Your task to perform on an android device: turn on data saver in the chrome app Image 0: 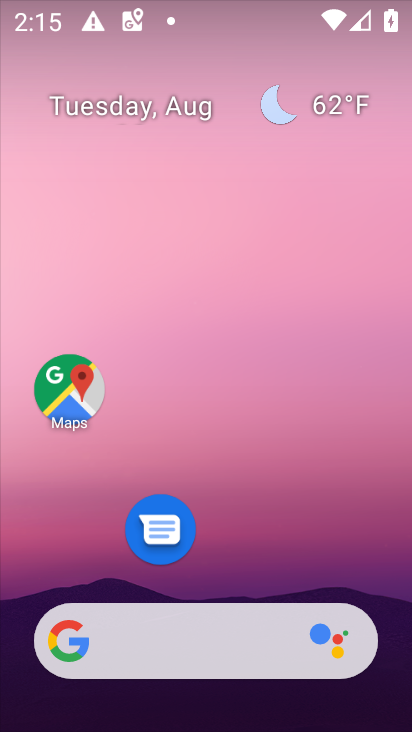
Step 0: click (319, 576)
Your task to perform on an android device: turn on data saver in the chrome app Image 1: 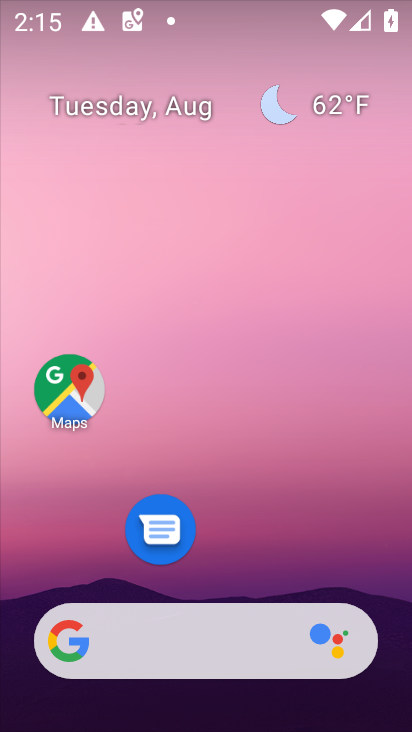
Step 1: drag from (318, 573) to (359, 131)
Your task to perform on an android device: turn on data saver in the chrome app Image 2: 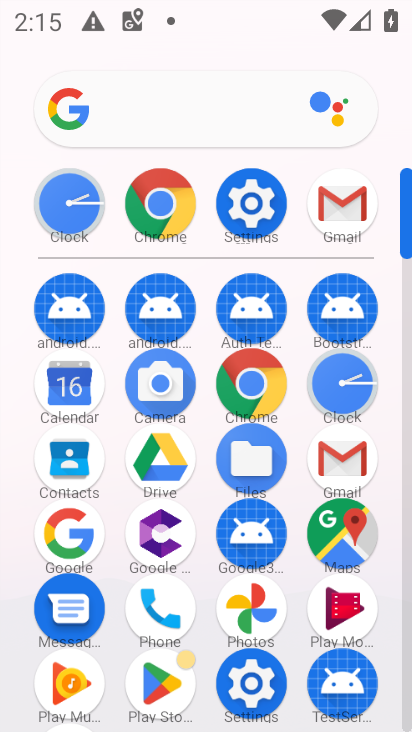
Step 2: click (167, 202)
Your task to perform on an android device: turn on data saver in the chrome app Image 3: 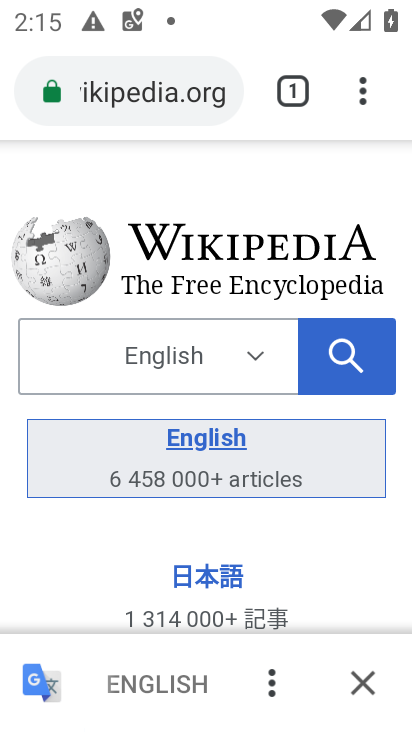
Step 3: click (368, 95)
Your task to perform on an android device: turn on data saver in the chrome app Image 4: 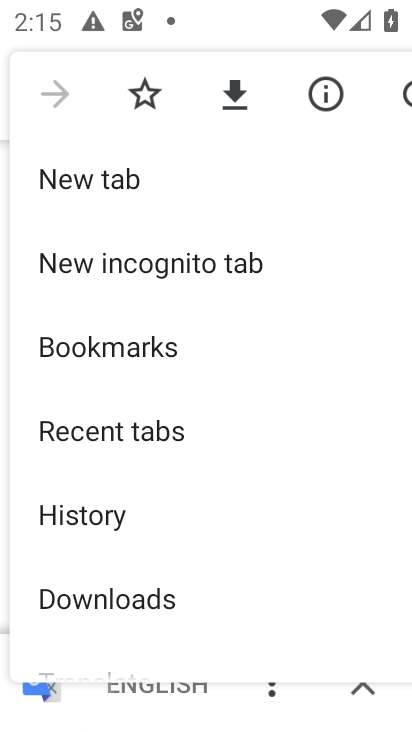
Step 4: drag from (174, 615) to (250, 158)
Your task to perform on an android device: turn on data saver in the chrome app Image 5: 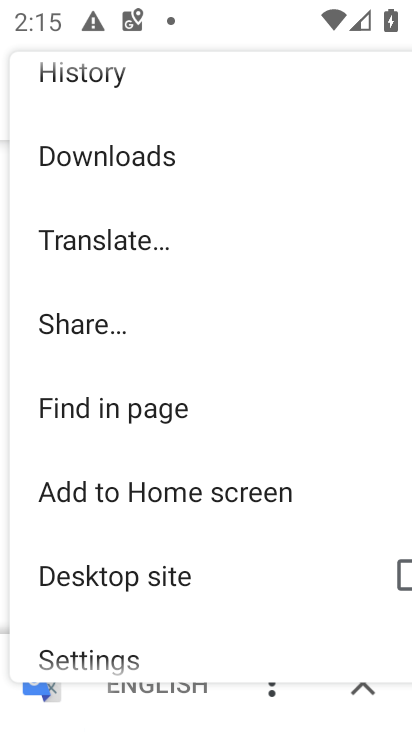
Step 5: click (177, 663)
Your task to perform on an android device: turn on data saver in the chrome app Image 6: 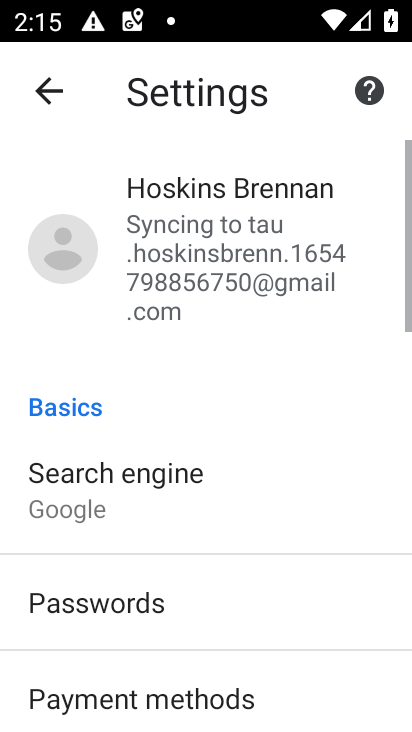
Step 6: drag from (177, 663) to (213, 354)
Your task to perform on an android device: turn on data saver in the chrome app Image 7: 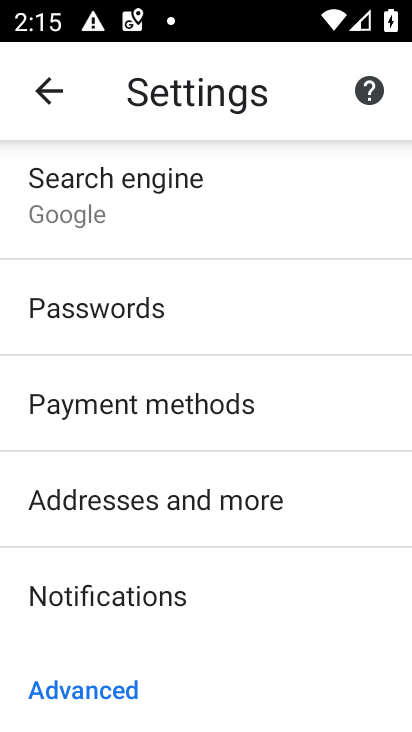
Step 7: drag from (112, 587) to (164, 312)
Your task to perform on an android device: turn on data saver in the chrome app Image 8: 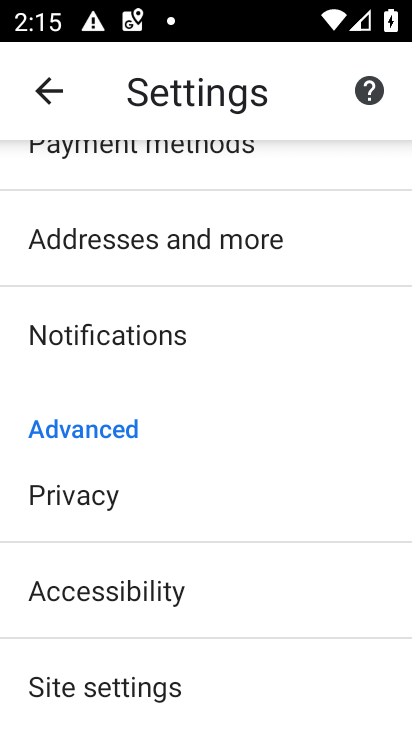
Step 8: drag from (240, 632) to (242, 459)
Your task to perform on an android device: turn on data saver in the chrome app Image 9: 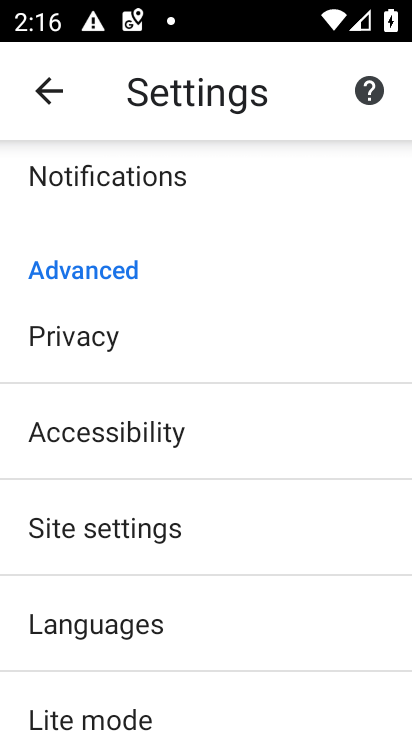
Step 9: click (244, 541)
Your task to perform on an android device: turn on data saver in the chrome app Image 10: 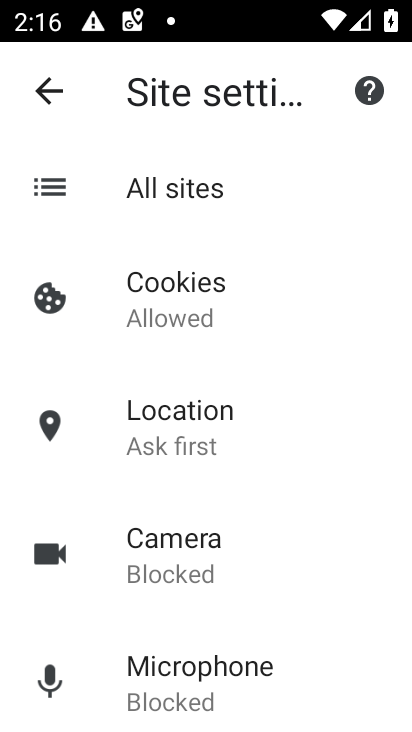
Step 10: drag from (224, 614) to (253, 360)
Your task to perform on an android device: turn on data saver in the chrome app Image 11: 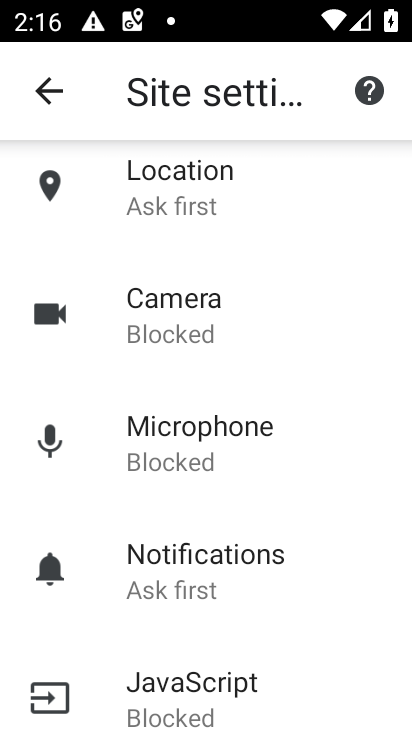
Step 11: drag from (237, 663) to (264, 471)
Your task to perform on an android device: turn on data saver in the chrome app Image 12: 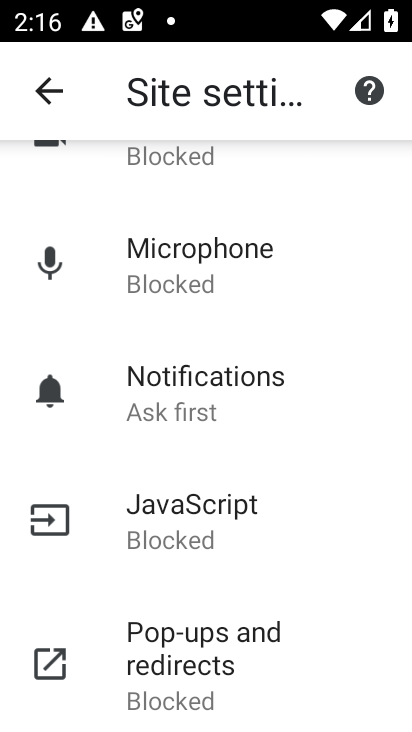
Step 12: drag from (252, 628) to (306, 170)
Your task to perform on an android device: turn on data saver in the chrome app Image 13: 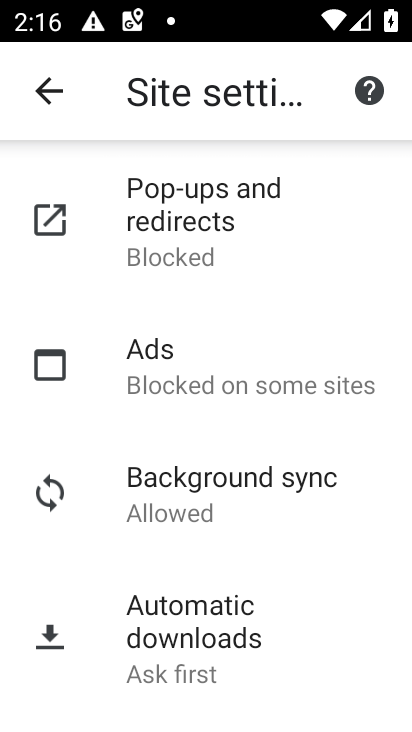
Step 13: click (48, 82)
Your task to perform on an android device: turn on data saver in the chrome app Image 14: 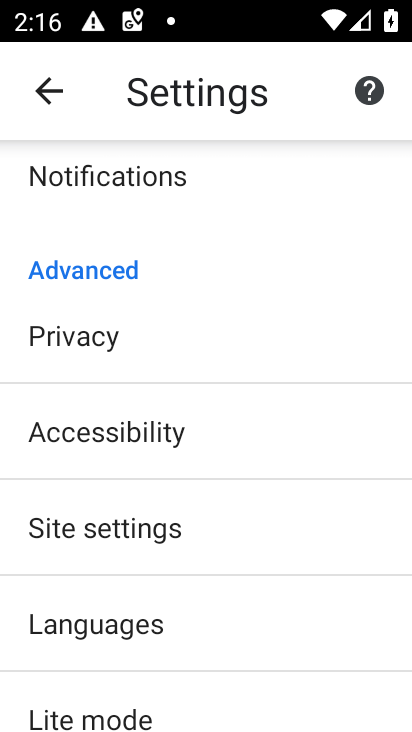
Step 14: task complete